Your task to perform on an android device: Open battery settings Image 0: 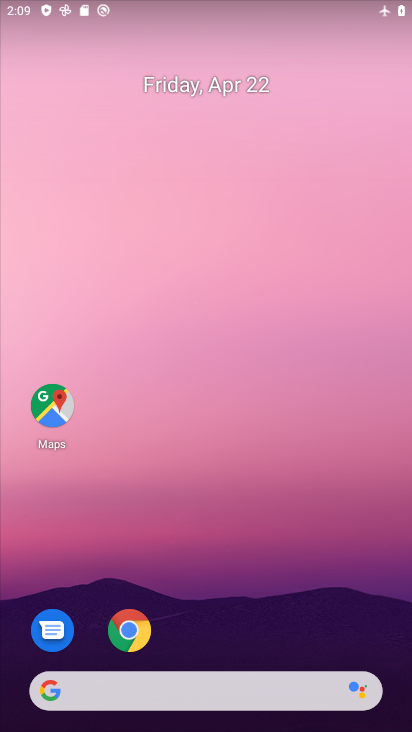
Step 0: drag from (327, 628) to (392, 137)
Your task to perform on an android device: Open battery settings Image 1: 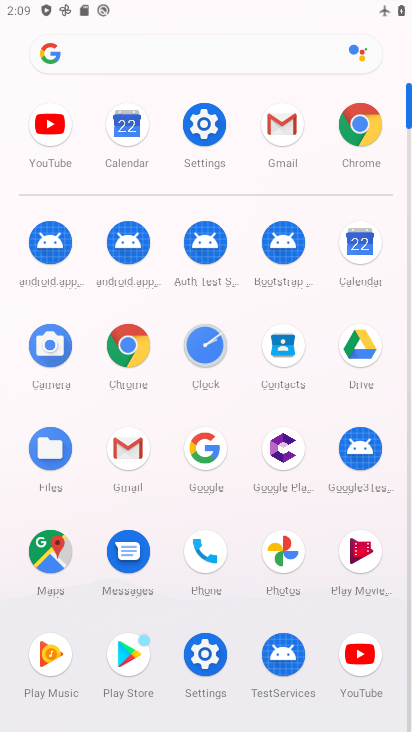
Step 1: click (218, 651)
Your task to perform on an android device: Open battery settings Image 2: 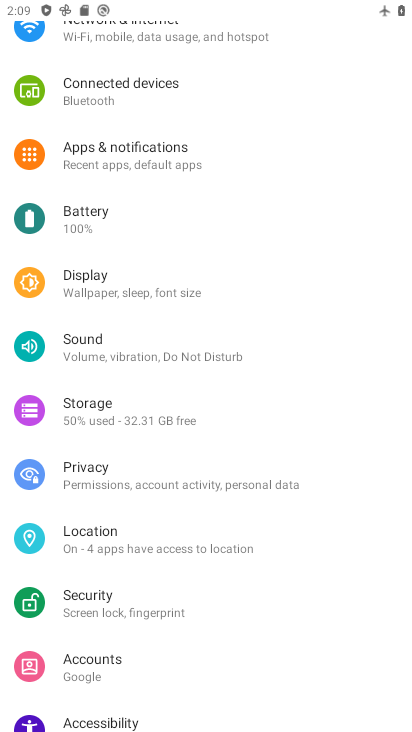
Step 2: click (90, 216)
Your task to perform on an android device: Open battery settings Image 3: 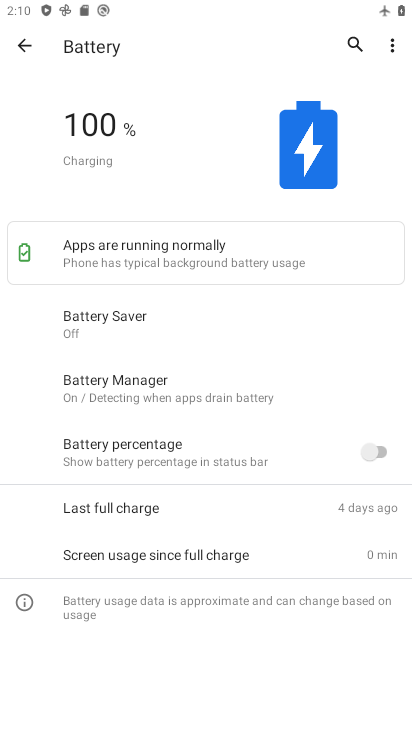
Step 3: task complete